Your task to perform on an android device: Open the Play Movies app and select the watchlist tab. Image 0: 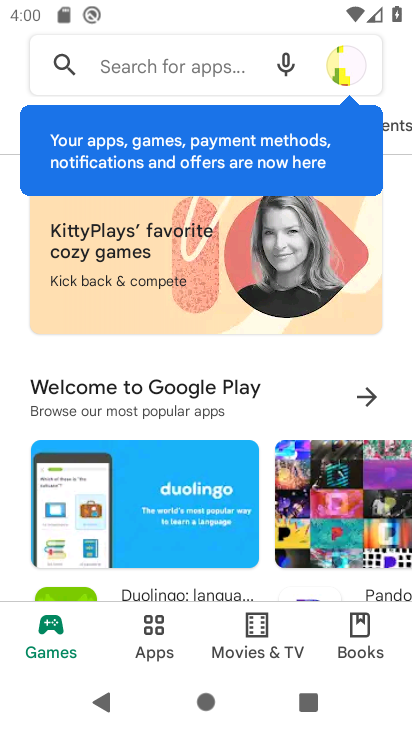
Step 0: press home button
Your task to perform on an android device: Open the Play Movies app and select the watchlist tab. Image 1: 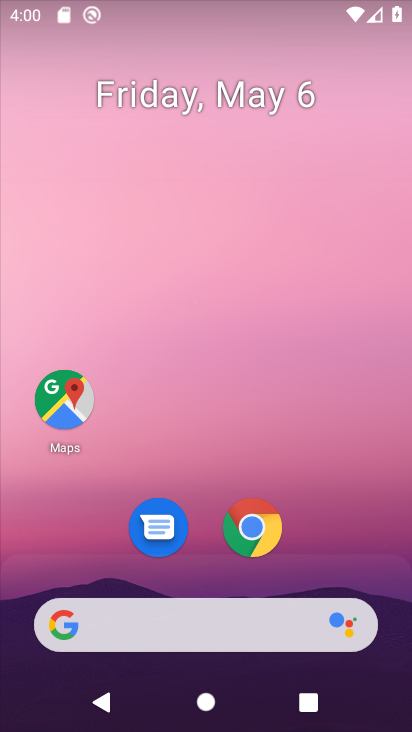
Step 1: drag from (128, 628) to (238, 71)
Your task to perform on an android device: Open the Play Movies app and select the watchlist tab. Image 2: 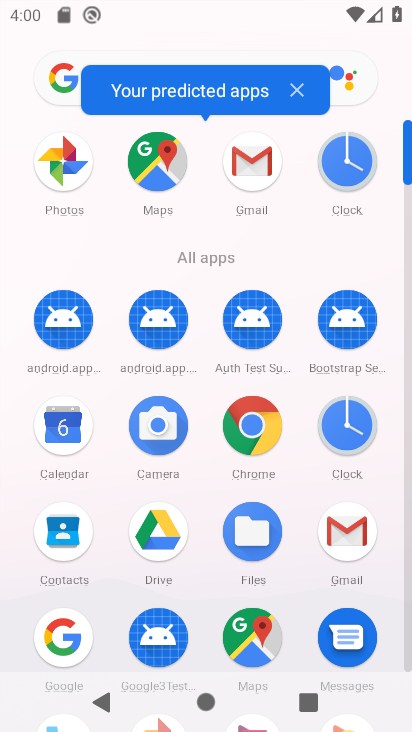
Step 2: drag from (216, 643) to (310, 351)
Your task to perform on an android device: Open the Play Movies app and select the watchlist tab. Image 3: 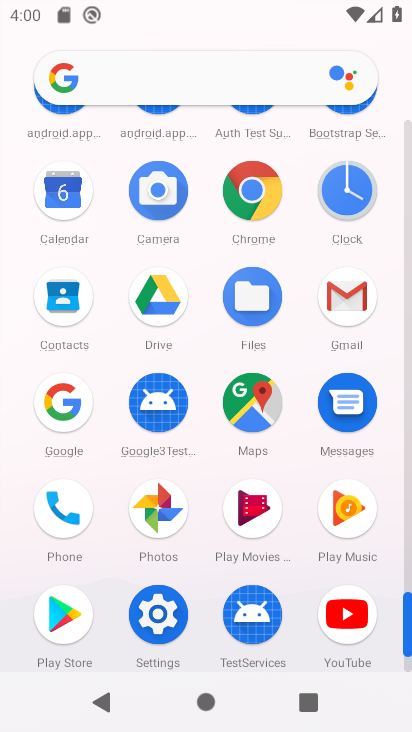
Step 3: click (254, 529)
Your task to perform on an android device: Open the Play Movies app and select the watchlist tab. Image 4: 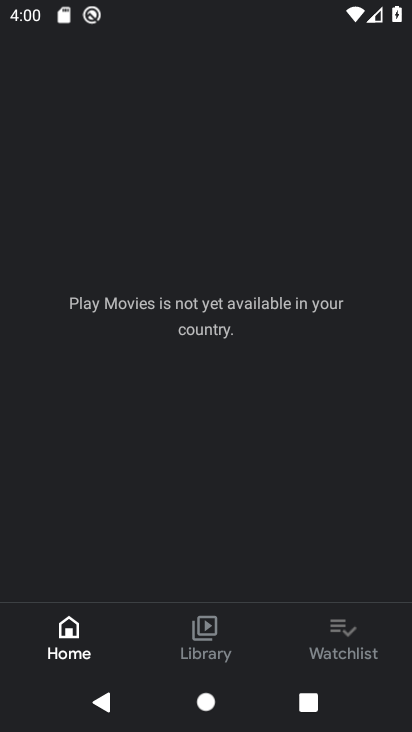
Step 4: click (333, 632)
Your task to perform on an android device: Open the Play Movies app and select the watchlist tab. Image 5: 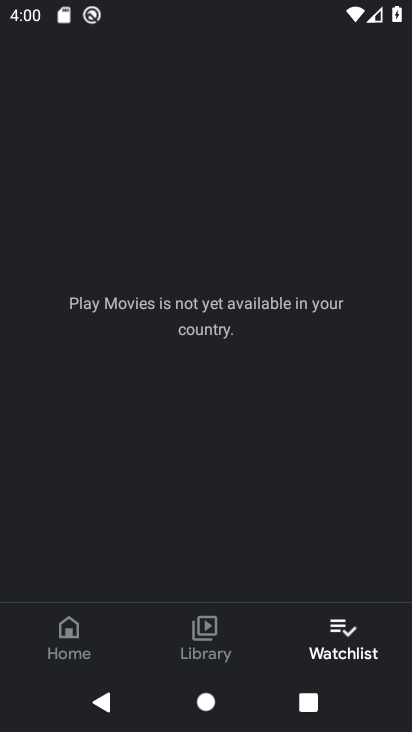
Step 5: task complete